Your task to perform on an android device: open sync settings in chrome Image 0: 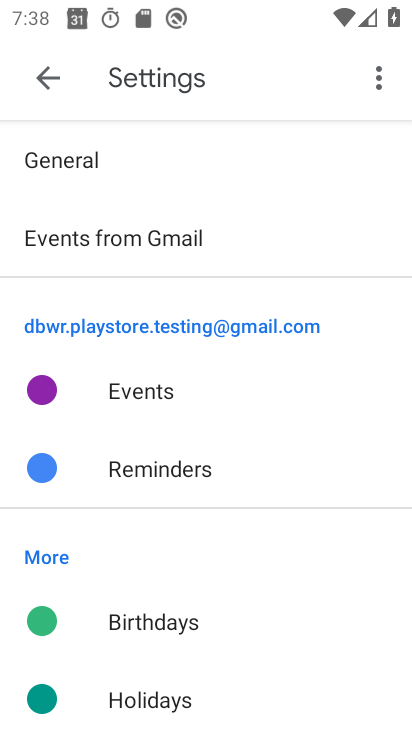
Step 0: press home button
Your task to perform on an android device: open sync settings in chrome Image 1: 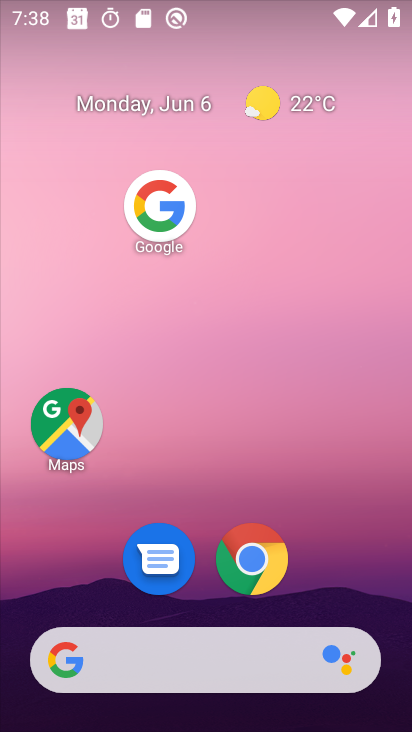
Step 1: drag from (213, 592) to (209, 170)
Your task to perform on an android device: open sync settings in chrome Image 2: 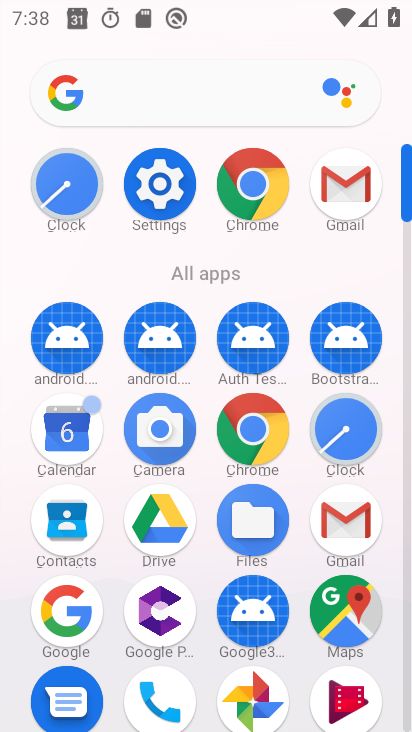
Step 2: click (250, 186)
Your task to perform on an android device: open sync settings in chrome Image 3: 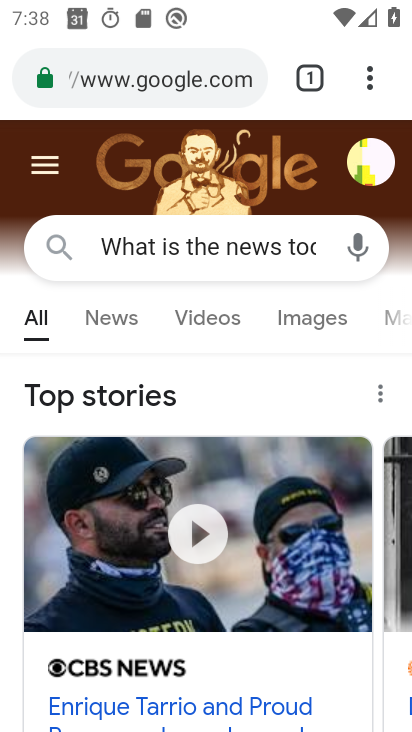
Step 3: click (368, 80)
Your task to perform on an android device: open sync settings in chrome Image 4: 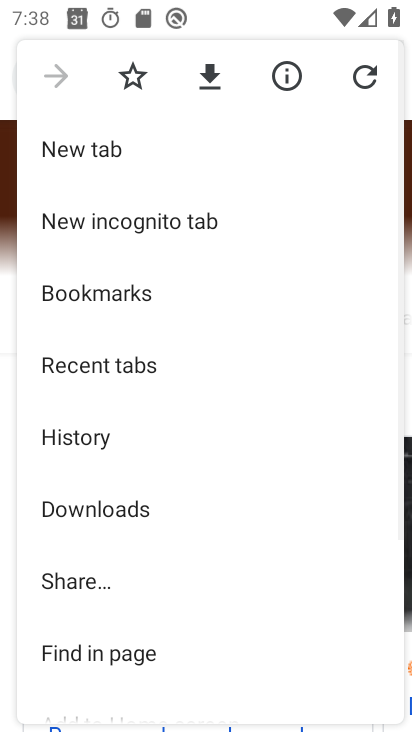
Step 4: drag from (93, 524) to (115, 159)
Your task to perform on an android device: open sync settings in chrome Image 5: 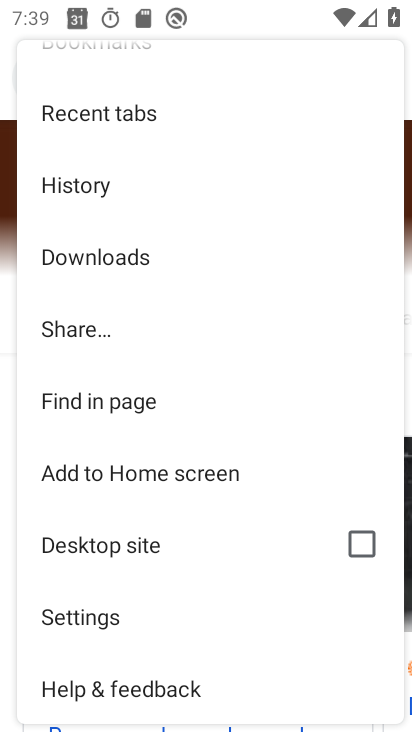
Step 5: click (93, 606)
Your task to perform on an android device: open sync settings in chrome Image 6: 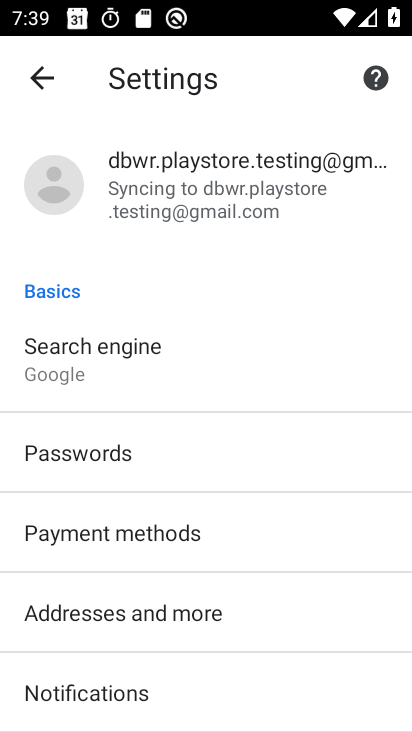
Step 6: click (131, 197)
Your task to perform on an android device: open sync settings in chrome Image 7: 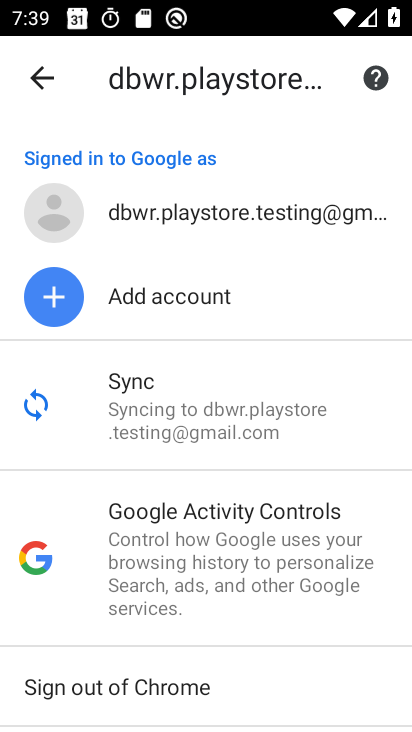
Step 7: click (143, 427)
Your task to perform on an android device: open sync settings in chrome Image 8: 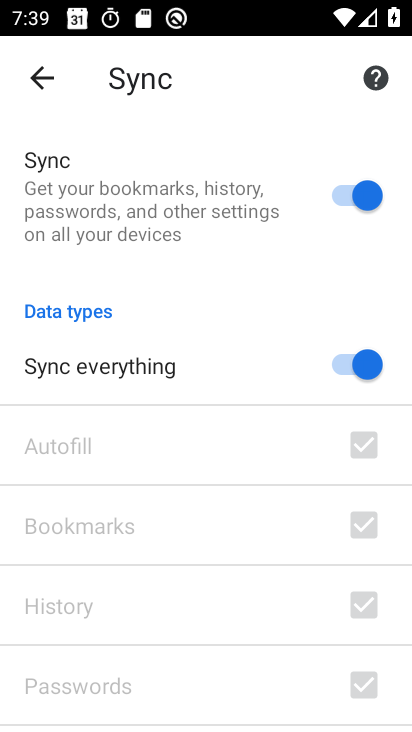
Step 8: task complete